Your task to perform on an android device: Show me popular videos on Youtube Image 0: 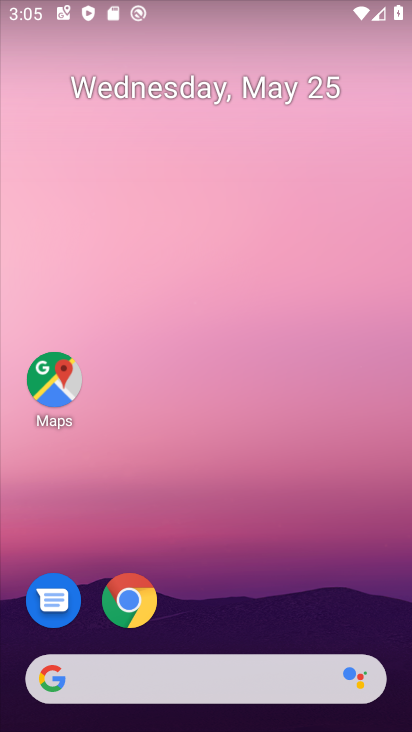
Step 0: press home button
Your task to perform on an android device: Show me popular videos on Youtube Image 1: 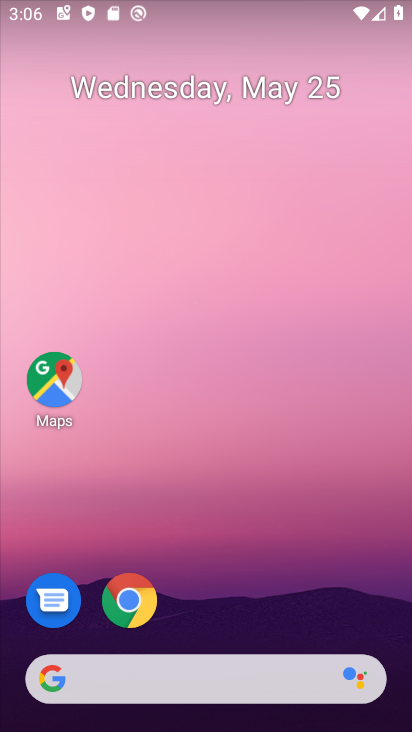
Step 1: drag from (9, 627) to (87, 433)
Your task to perform on an android device: Show me popular videos on Youtube Image 2: 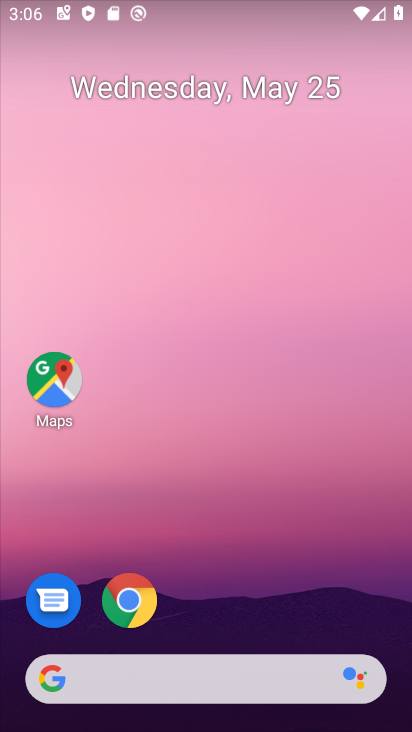
Step 2: drag from (28, 603) to (305, 128)
Your task to perform on an android device: Show me popular videos on Youtube Image 3: 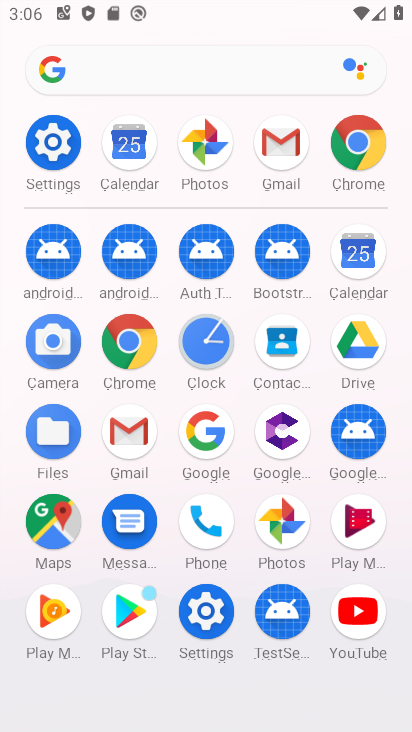
Step 3: click (363, 611)
Your task to perform on an android device: Show me popular videos on Youtube Image 4: 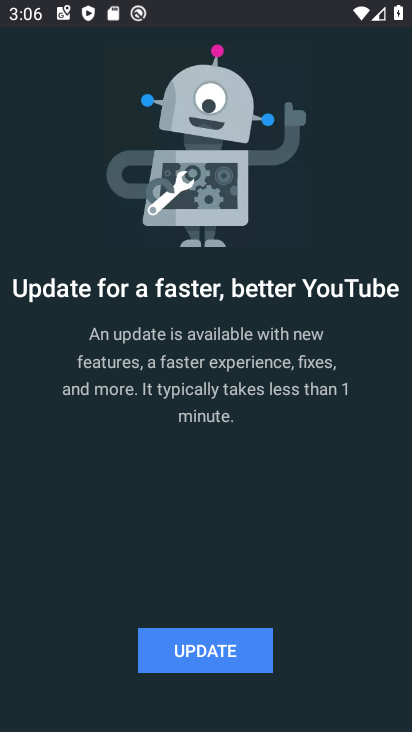
Step 4: task complete